Your task to perform on an android device: turn off javascript in the chrome app Image 0: 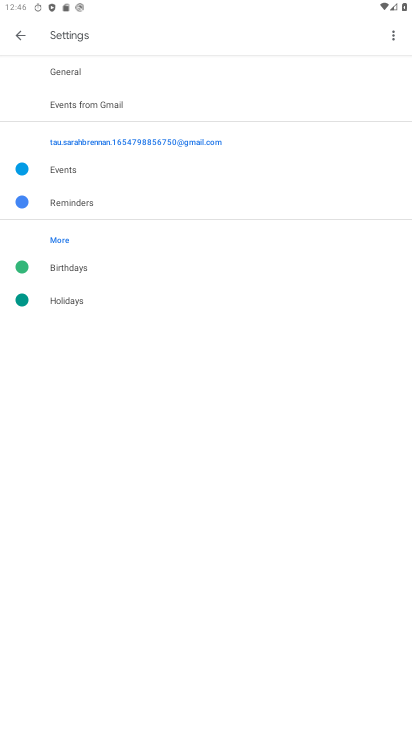
Step 0: press home button
Your task to perform on an android device: turn off javascript in the chrome app Image 1: 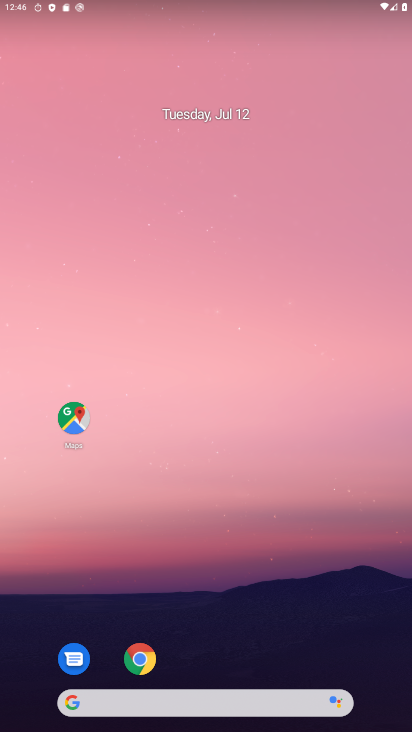
Step 1: drag from (317, 617) to (283, 232)
Your task to perform on an android device: turn off javascript in the chrome app Image 2: 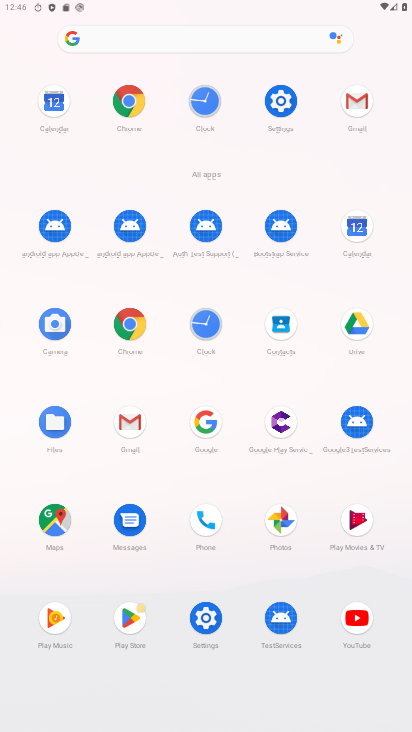
Step 2: click (131, 320)
Your task to perform on an android device: turn off javascript in the chrome app Image 3: 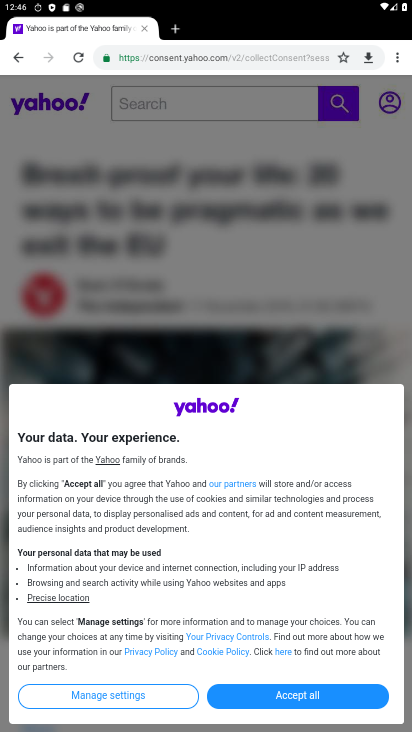
Step 3: drag from (396, 47) to (283, 379)
Your task to perform on an android device: turn off javascript in the chrome app Image 4: 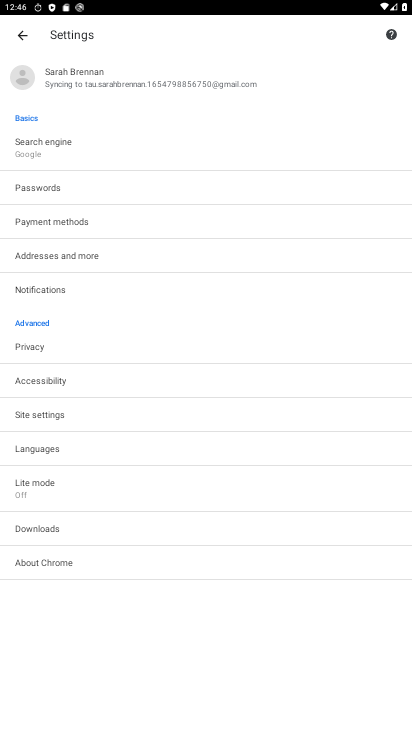
Step 4: click (53, 414)
Your task to perform on an android device: turn off javascript in the chrome app Image 5: 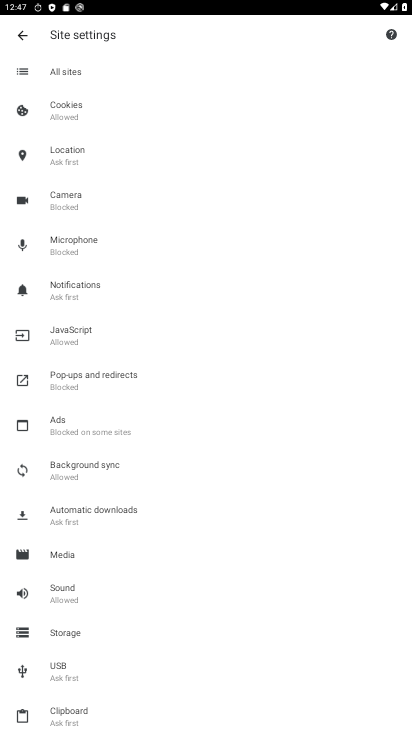
Step 5: click (73, 334)
Your task to perform on an android device: turn off javascript in the chrome app Image 6: 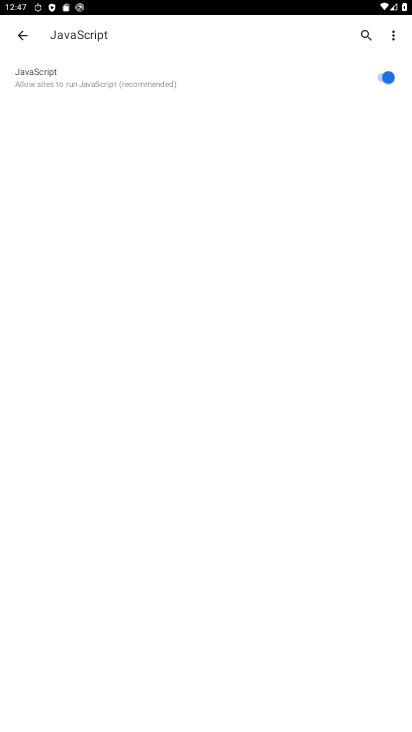
Step 6: click (389, 77)
Your task to perform on an android device: turn off javascript in the chrome app Image 7: 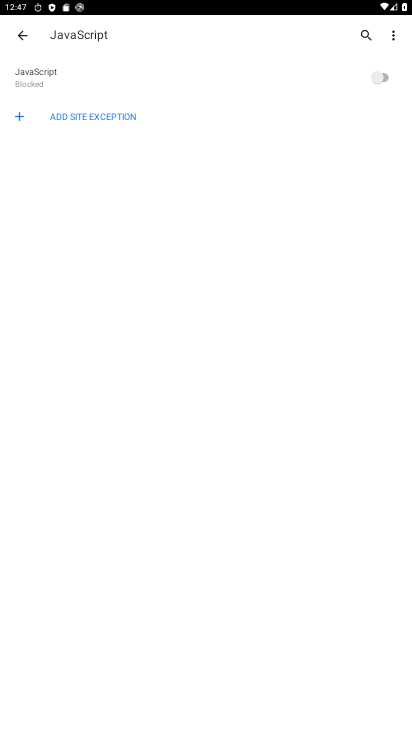
Step 7: task complete